Your task to perform on an android device: Go to sound settings Image 0: 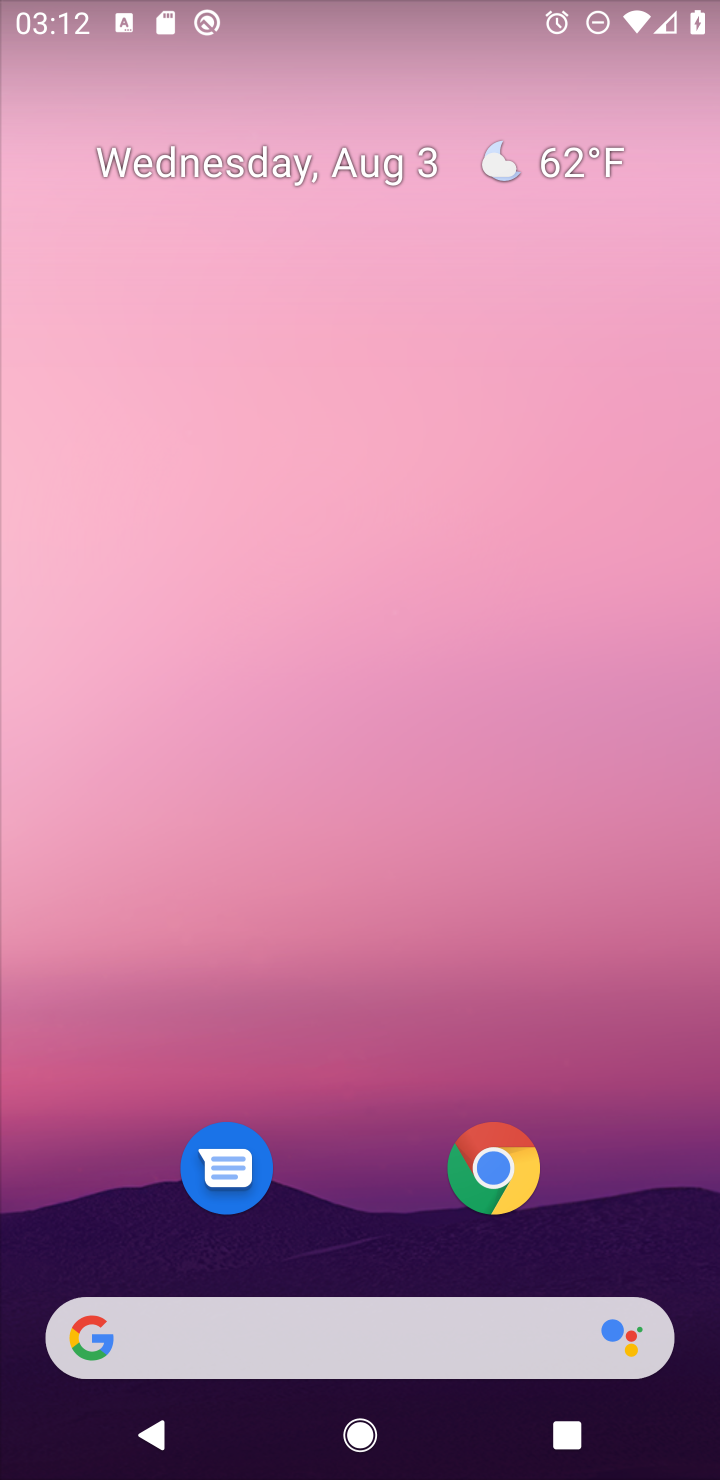
Step 0: drag from (689, 1213) to (586, 302)
Your task to perform on an android device: Go to sound settings Image 1: 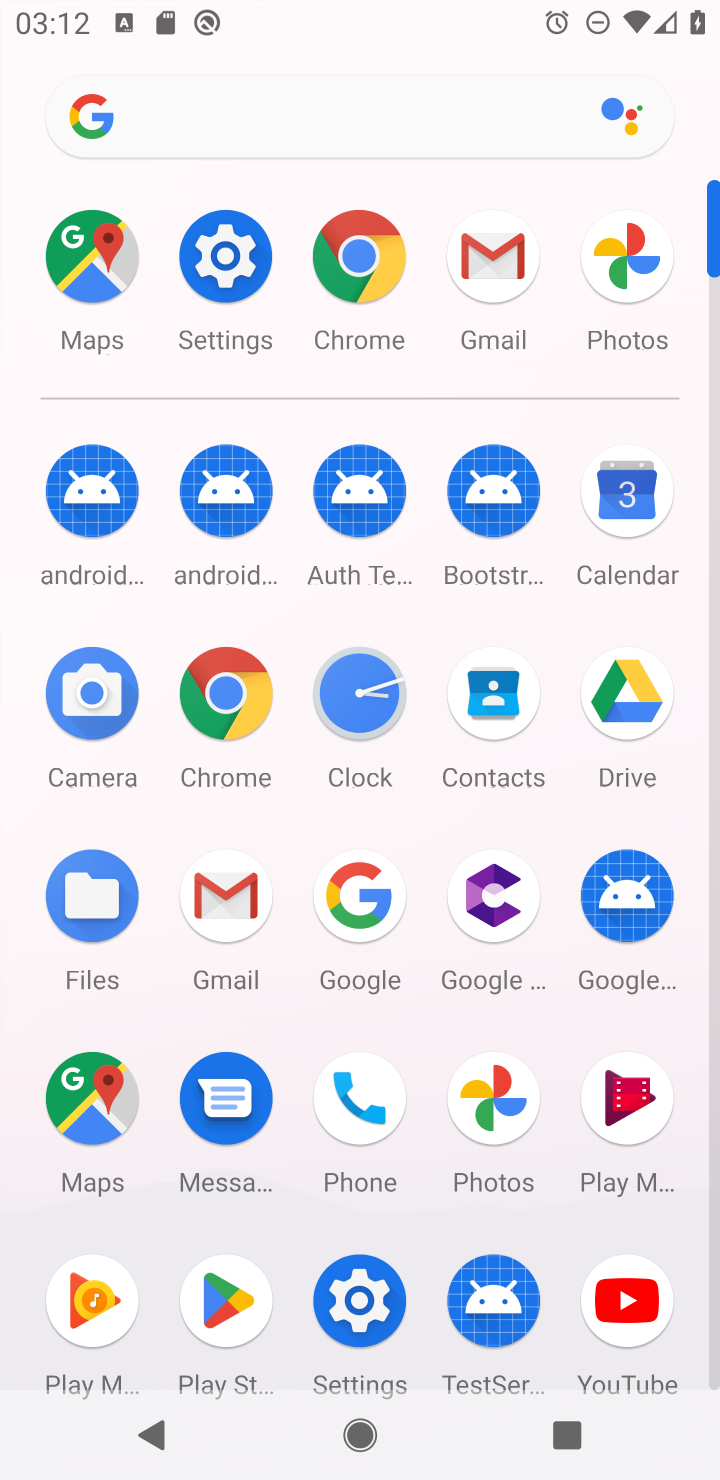
Step 1: click (359, 1299)
Your task to perform on an android device: Go to sound settings Image 2: 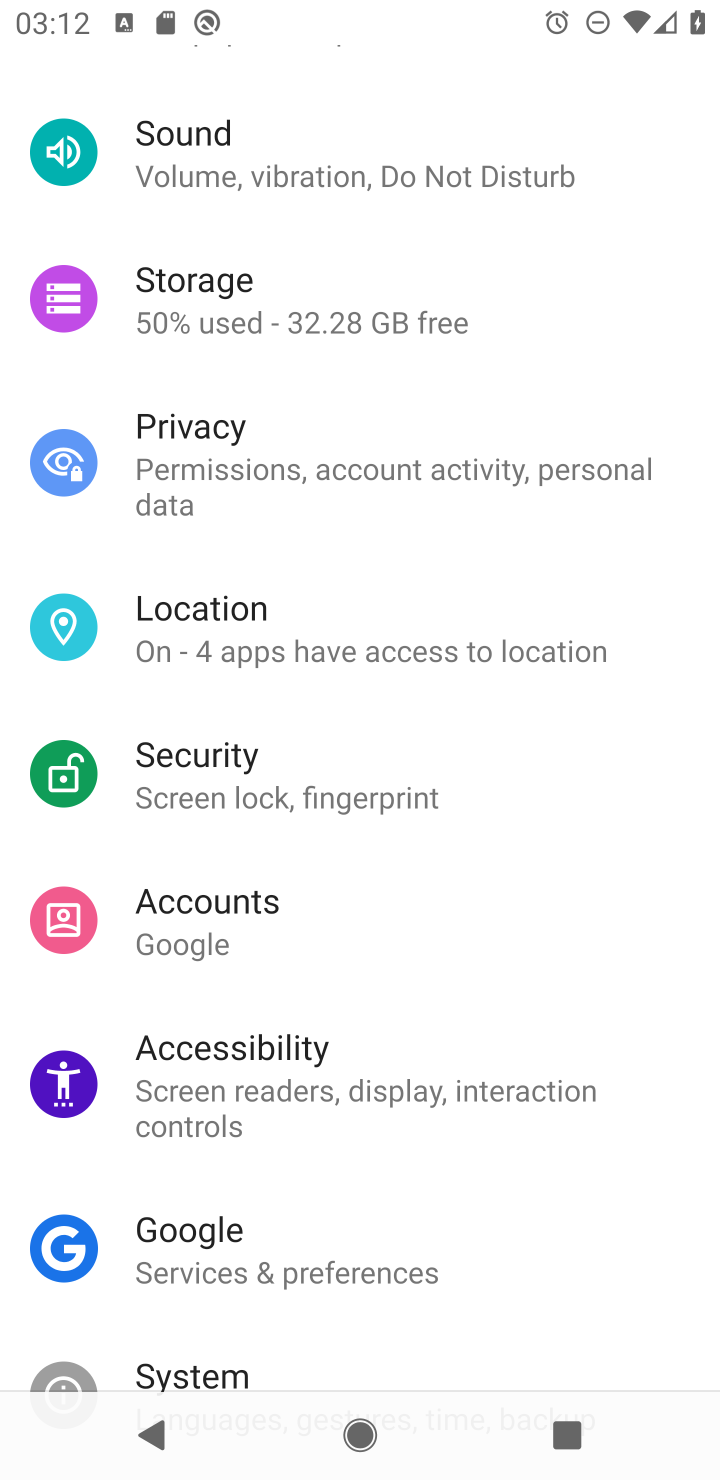
Step 2: click (209, 139)
Your task to perform on an android device: Go to sound settings Image 3: 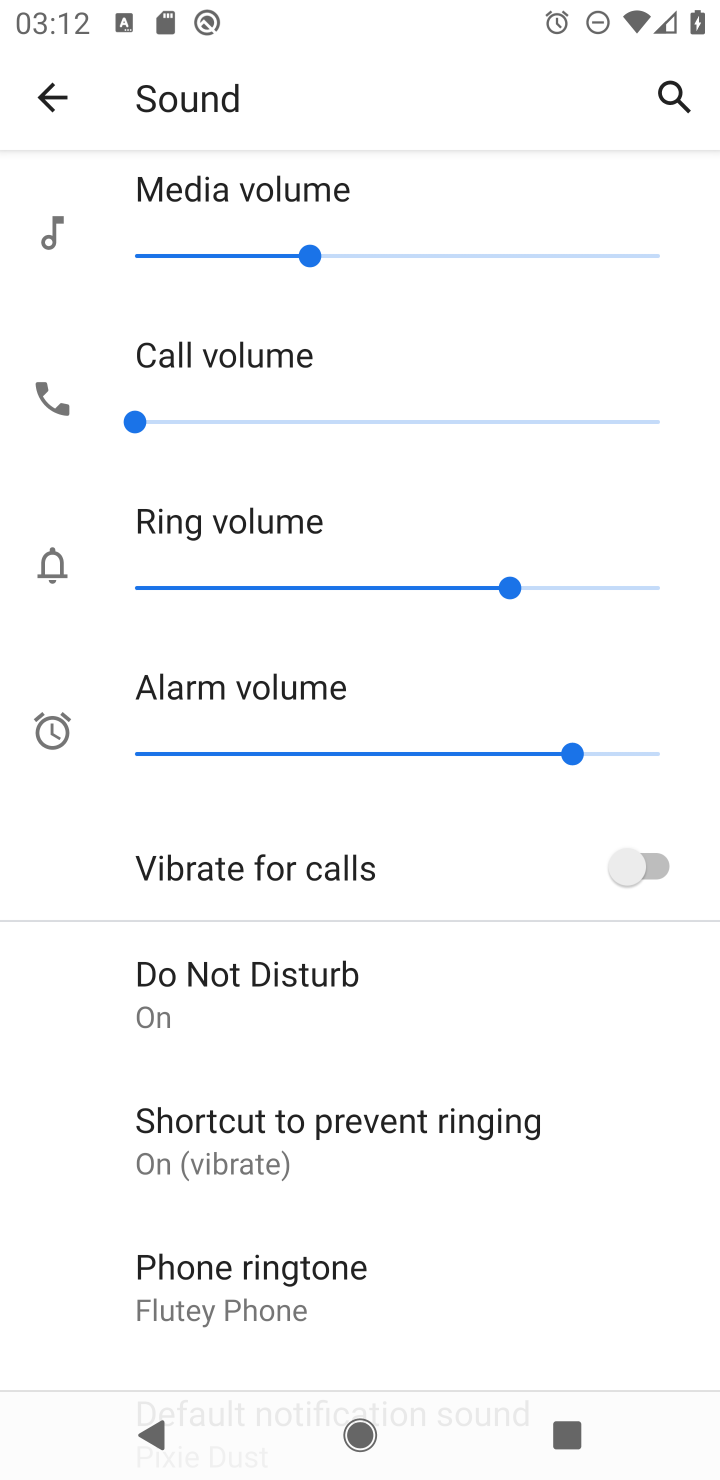
Step 3: drag from (441, 1147) to (481, 314)
Your task to perform on an android device: Go to sound settings Image 4: 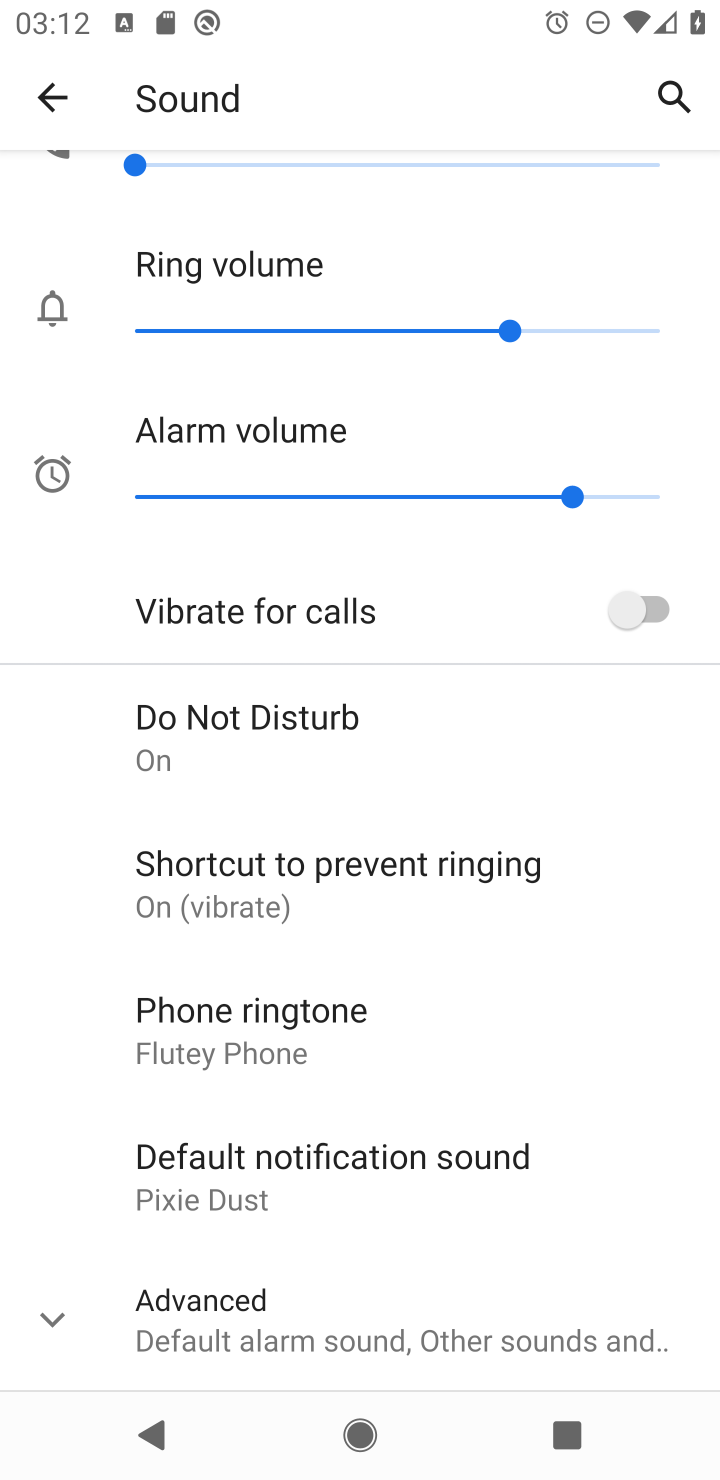
Step 4: click (49, 1316)
Your task to perform on an android device: Go to sound settings Image 5: 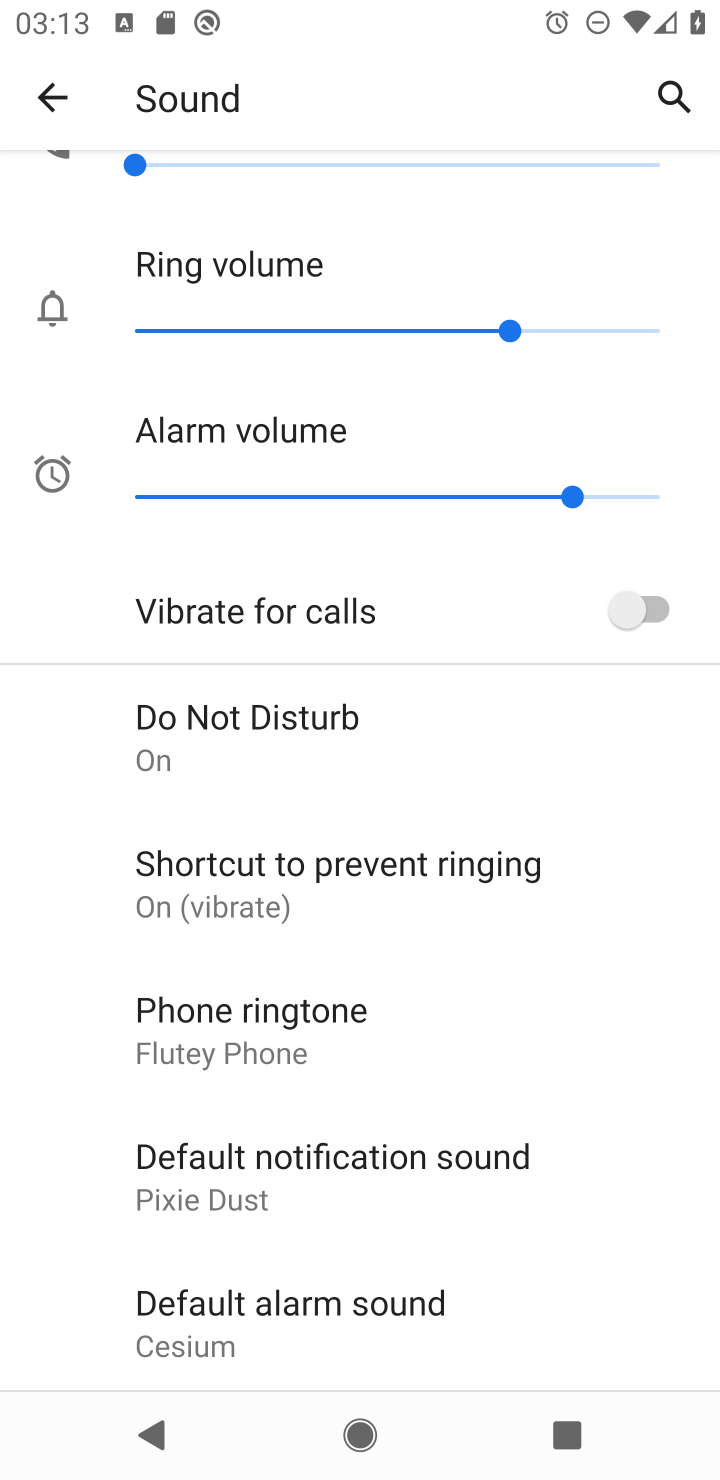
Step 5: task complete